Your task to perform on an android device: Open maps Image 0: 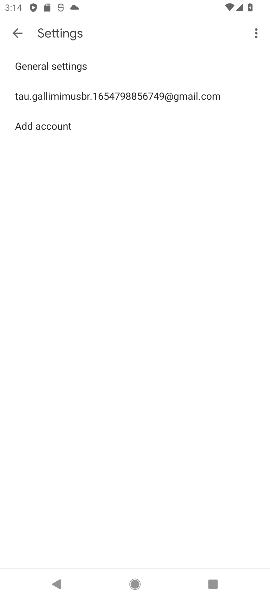
Step 0: press home button
Your task to perform on an android device: Open maps Image 1: 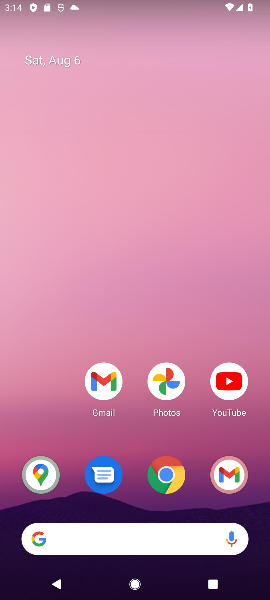
Step 1: click (36, 477)
Your task to perform on an android device: Open maps Image 2: 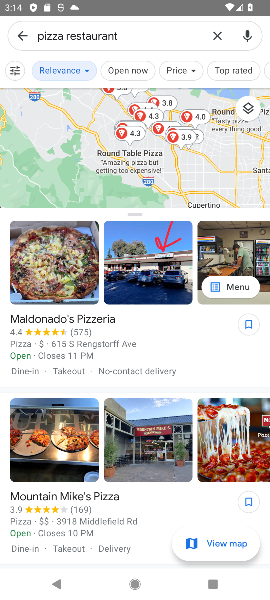
Step 2: click (17, 36)
Your task to perform on an android device: Open maps Image 3: 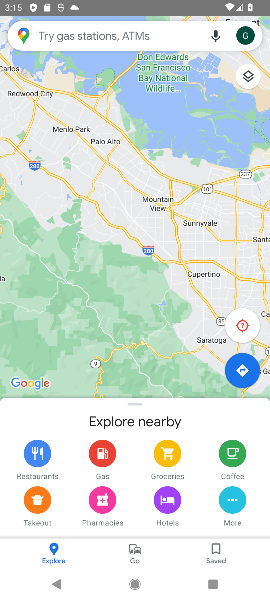
Step 3: task complete